Your task to perform on an android device: remove spam from my inbox in the gmail app Image 0: 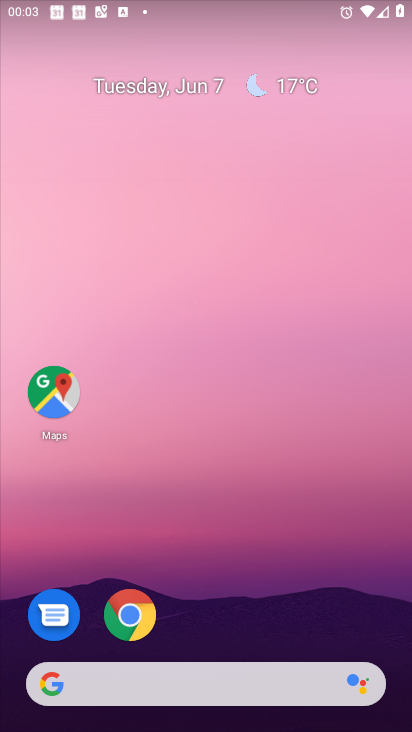
Step 0: drag from (394, 672) to (356, 445)
Your task to perform on an android device: remove spam from my inbox in the gmail app Image 1: 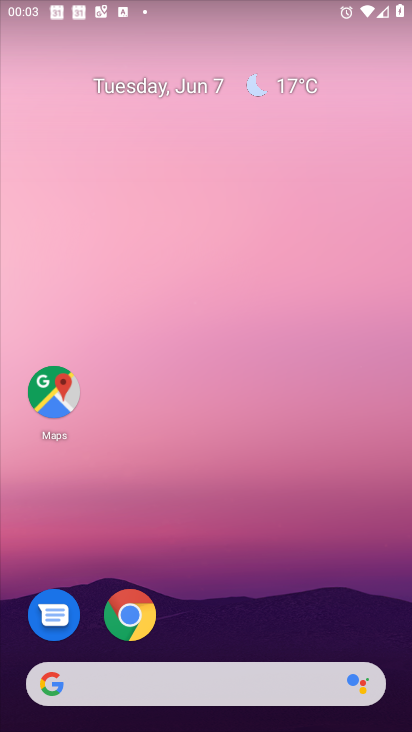
Step 1: drag from (402, 674) to (400, 235)
Your task to perform on an android device: remove spam from my inbox in the gmail app Image 2: 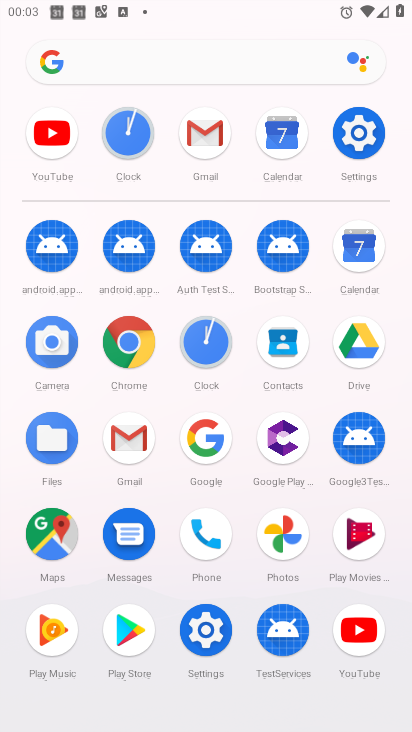
Step 2: click (217, 138)
Your task to perform on an android device: remove spam from my inbox in the gmail app Image 3: 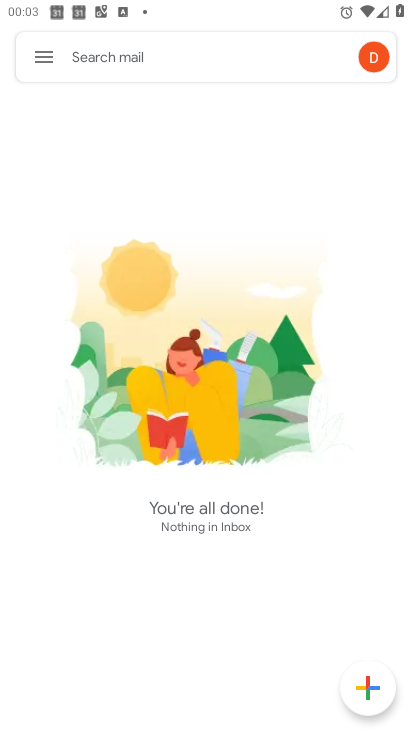
Step 3: click (43, 56)
Your task to perform on an android device: remove spam from my inbox in the gmail app Image 4: 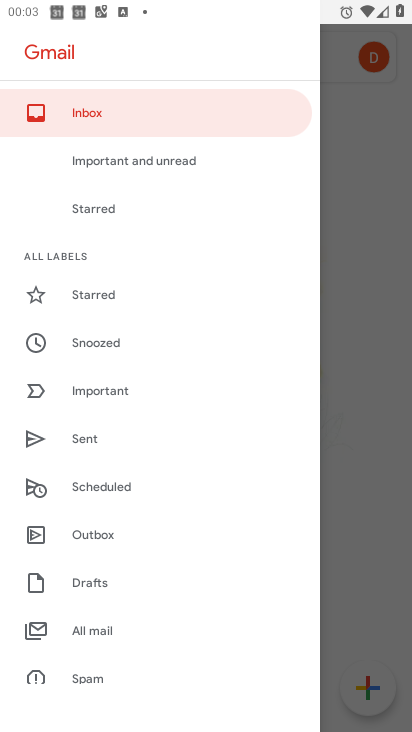
Step 4: click (80, 678)
Your task to perform on an android device: remove spam from my inbox in the gmail app Image 5: 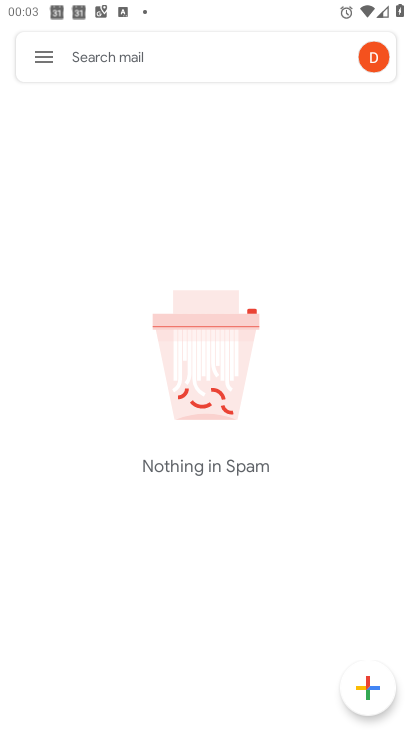
Step 5: task complete